Your task to perform on an android device: Set the phone to "Do not disturb". Image 0: 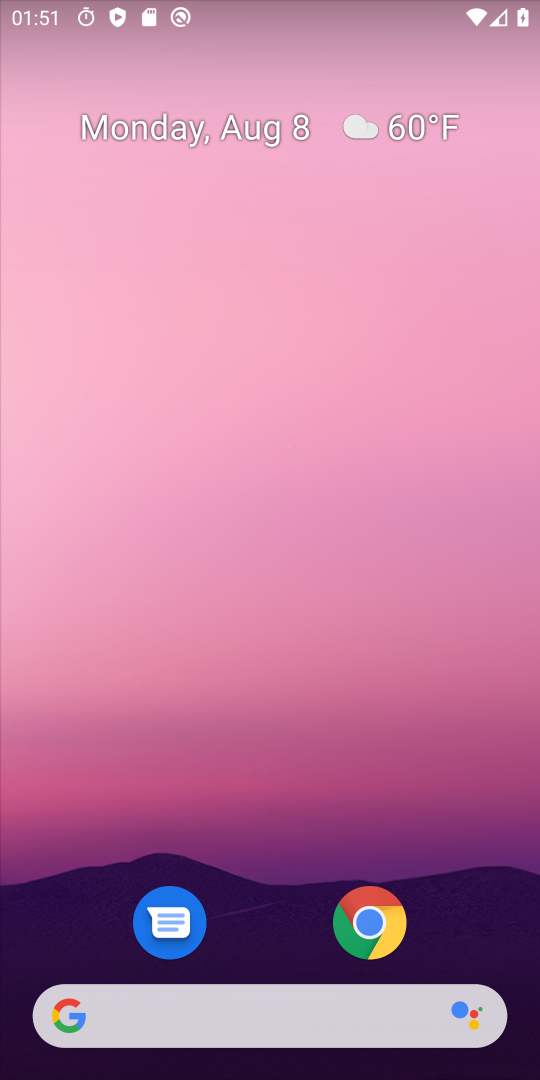
Step 0: drag from (309, 5) to (411, 671)
Your task to perform on an android device: Set the phone to "Do not disturb". Image 1: 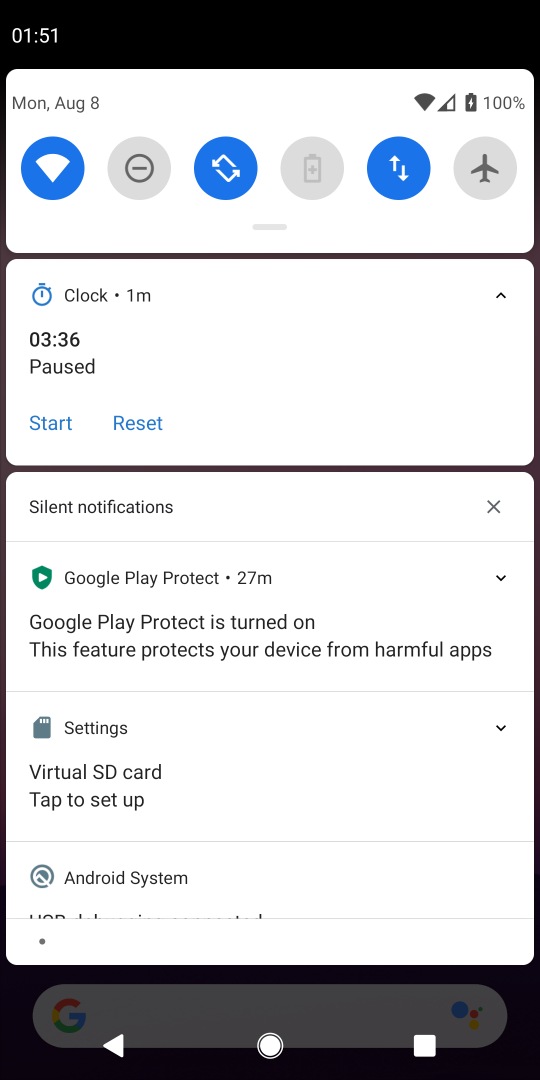
Step 1: click (134, 157)
Your task to perform on an android device: Set the phone to "Do not disturb". Image 2: 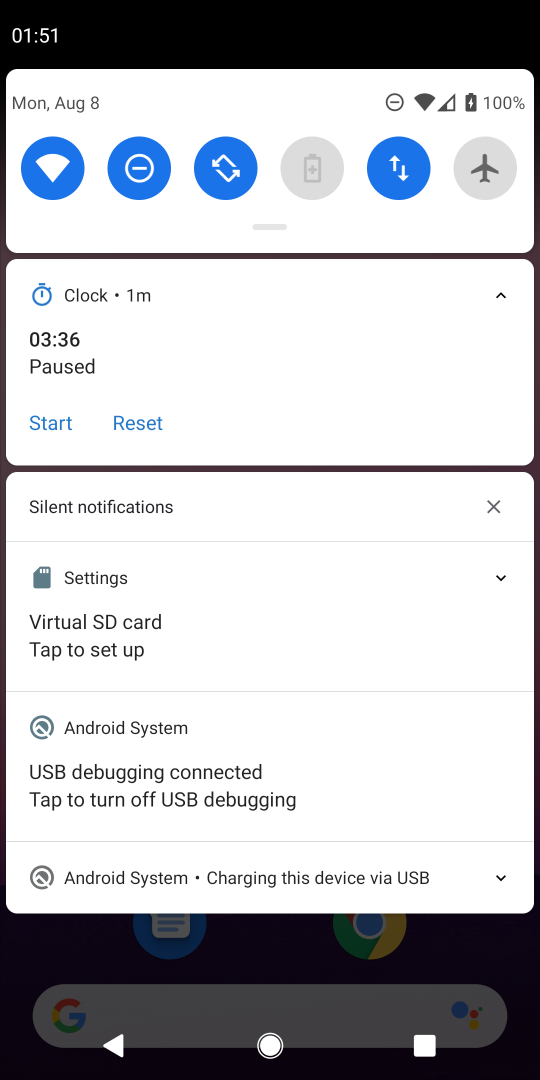
Step 2: task complete